Your task to perform on an android device: Show me recent news Image 0: 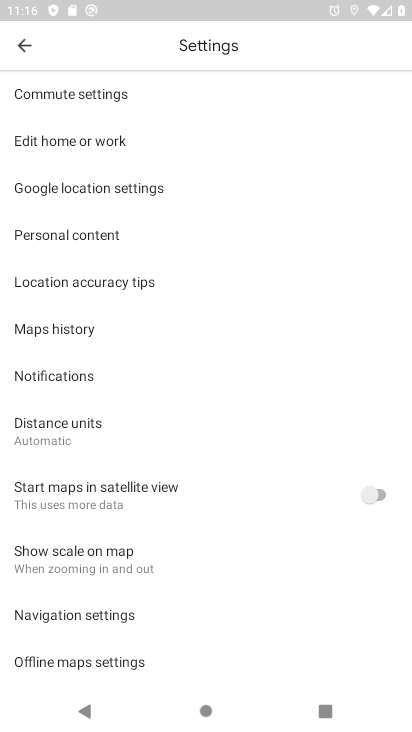
Step 0: click (30, 46)
Your task to perform on an android device: Show me recent news Image 1: 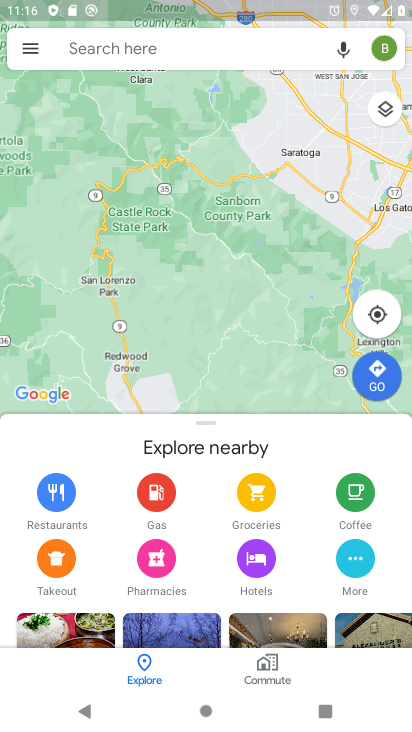
Step 1: press home button
Your task to perform on an android device: Show me recent news Image 2: 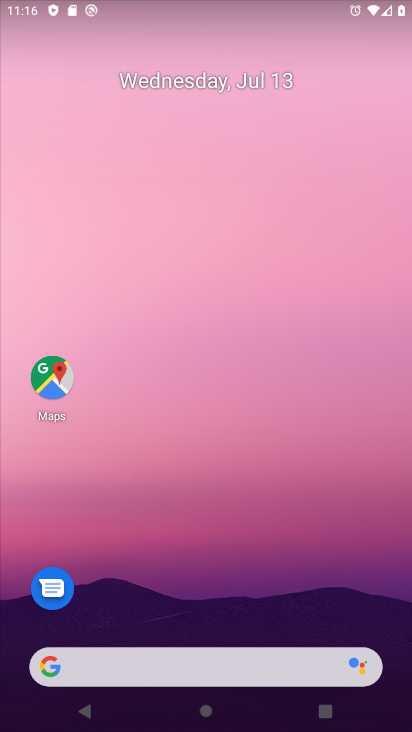
Step 2: click (261, 661)
Your task to perform on an android device: Show me recent news Image 3: 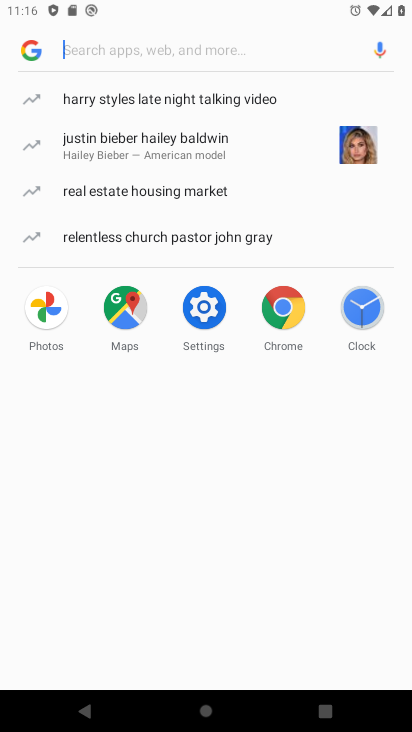
Step 3: type "recent news "
Your task to perform on an android device: Show me recent news Image 4: 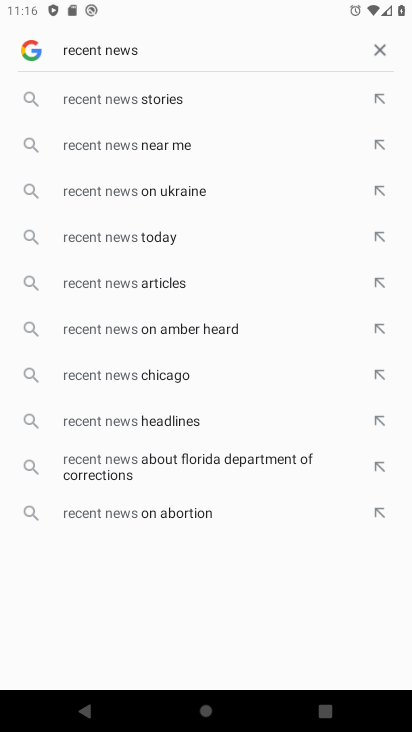
Step 4: press enter
Your task to perform on an android device: Show me recent news Image 5: 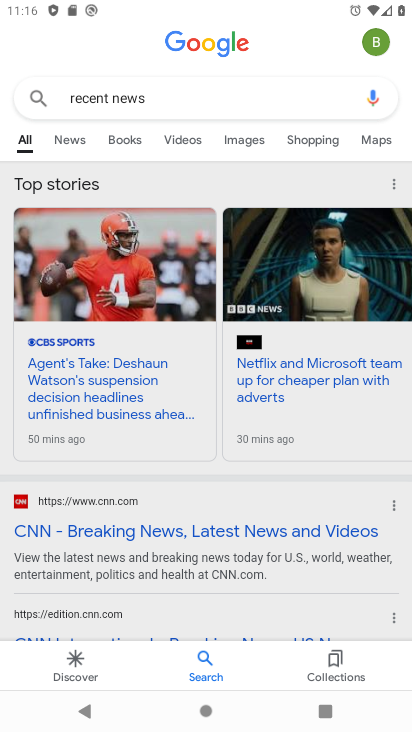
Step 5: task complete